Your task to perform on an android device: Go to Android settings Image 0: 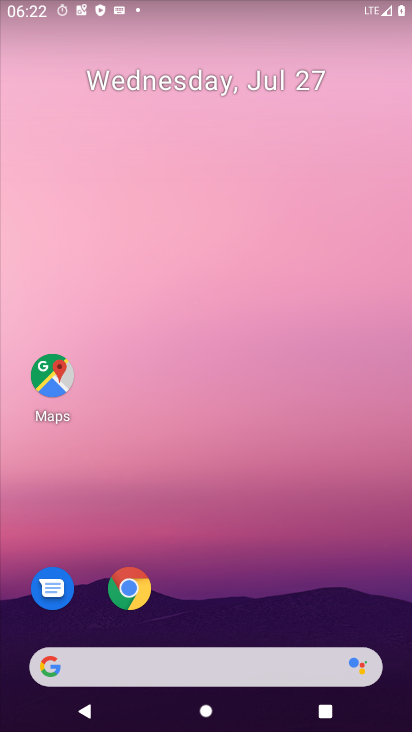
Step 0: drag from (265, 663) to (65, 116)
Your task to perform on an android device: Go to Android settings Image 1: 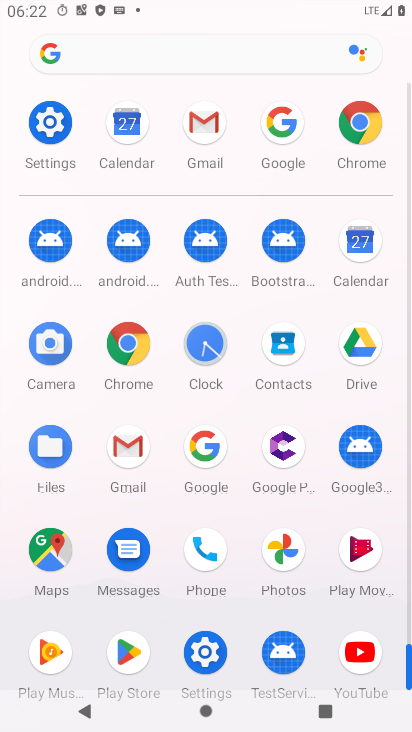
Step 1: click (56, 120)
Your task to perform on an android device: Go to Android settings Image 2: 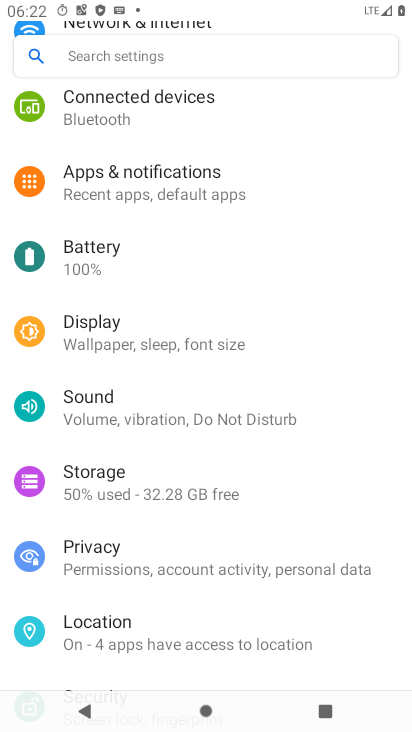
Step 2: drag from (203, 589) to (276, 144)
Your task to perform on an android device: Go to Android settings Image 3: 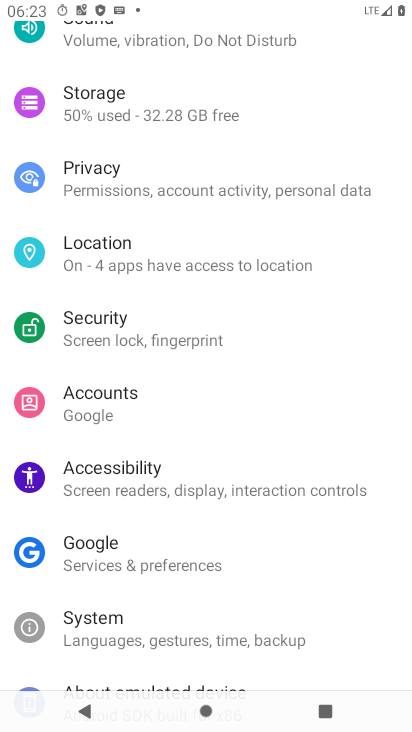
Step 3: drag from (162, 628) to (236, 204)
Your task to perform on an android device: Go to Android settings Image 4: 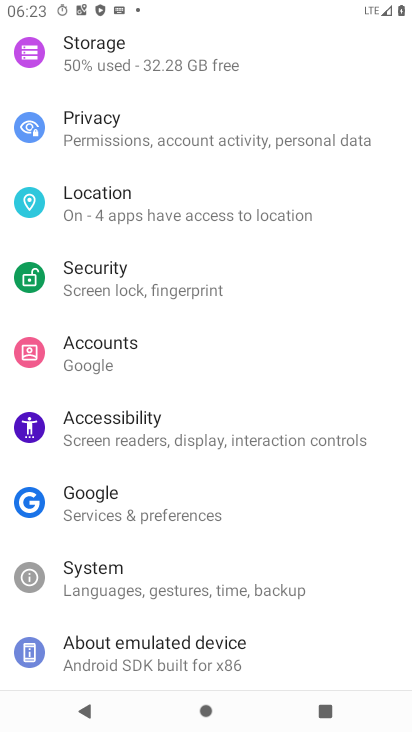
Step 4: click (194, 659)
Your task to perform on an android device: Go to Android settings Image 5: 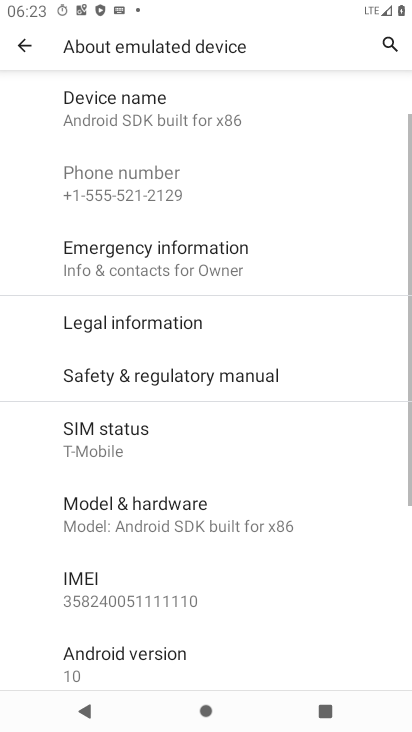
Step 5: click (148, 661)
Your task to perform on an android device: Go to Android settings Image 6: 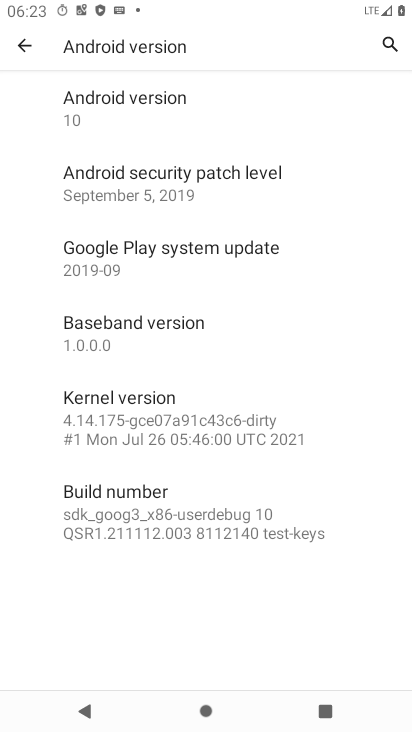
Step 6: task complete